Your task to perform on an android device: turn on notifications settings in the gmail app Image 0: 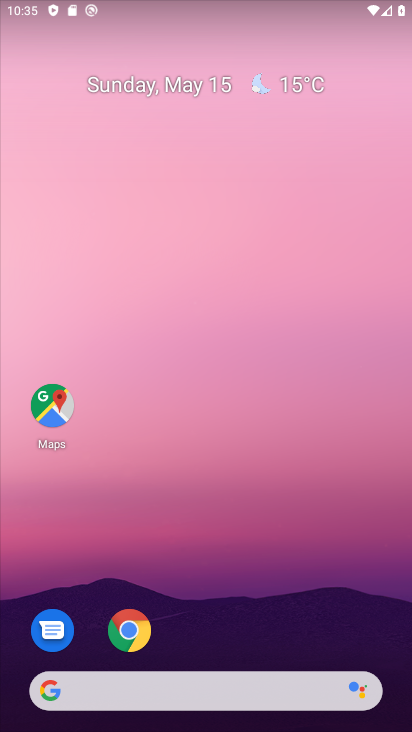
Step 0: drag from (213, 725) to (214, 228)
Your task to perform on an android device: turn on notifications settings in the gmail app Image 1: 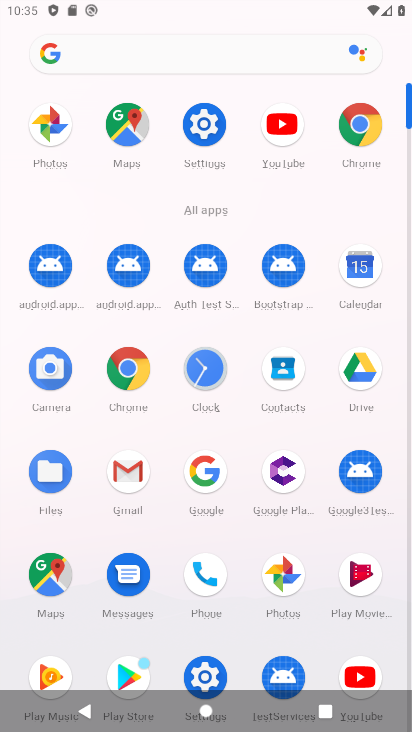
Step 1: click (131, 474)
Your task to perform on an android device: turn on notifications settings in the gmail app Image 2: 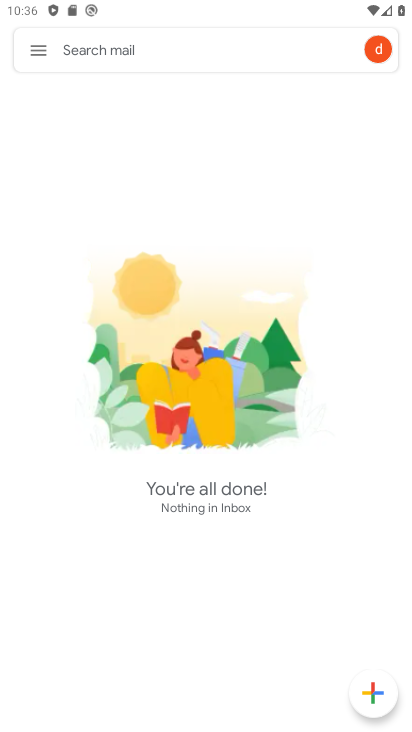
Step 2: click (38, 54)
Your task to perform on an android device: turn on notifications settings in the gmail app Image 3: 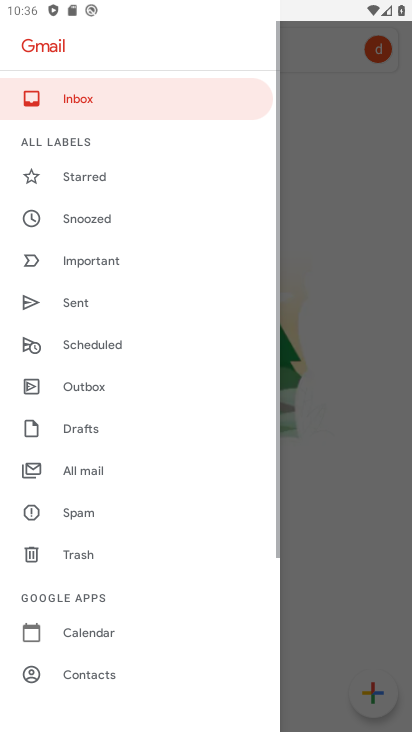
Step 3: drag from (99, 668) to (101, 288)
Your task to perform on an android device: turn on notifications settings in the gmail app Image 4: 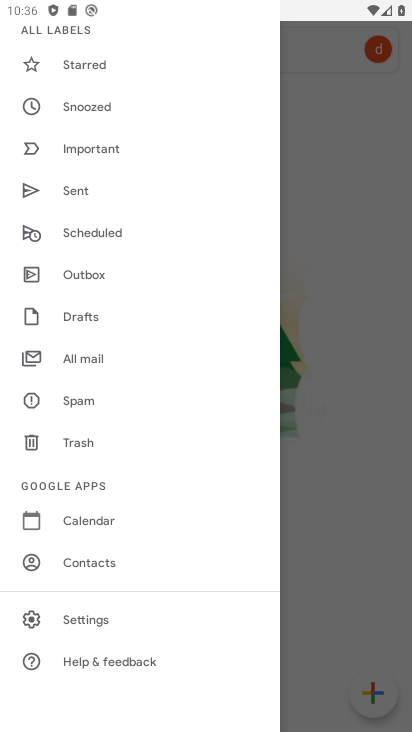
Step 4: click (96, 615)
Your task to perform on an android device: turn on notifications settings in the gmail app Image 5: 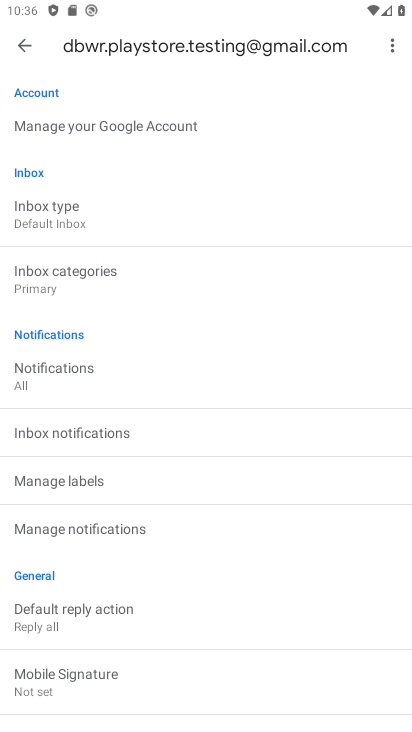
Step 5: click (65, 367)
Your task to perform on an android device: turn on notifications settings in the gmail app Image 6: 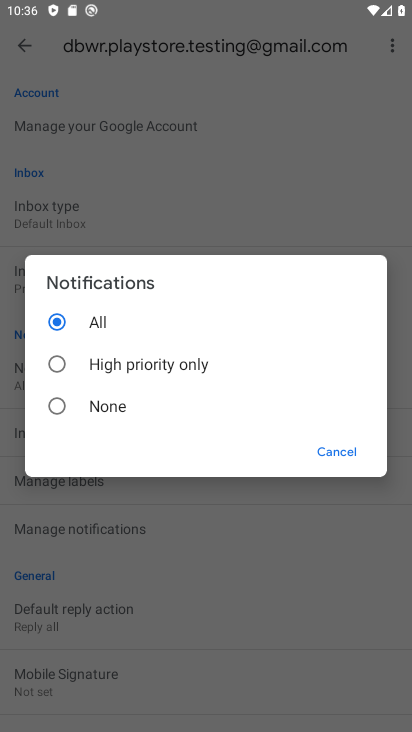
Step 6: click (343, 442)
Your task to perform on an android device: turn on notifications settings in the gmail app Image 7: 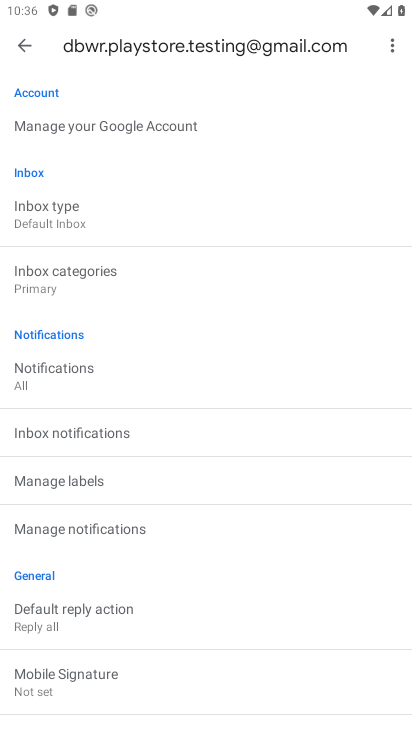
Step 7: task complete